Your task to perform on an android device: Search for a nice rug on Crate & Barrel Image 0: 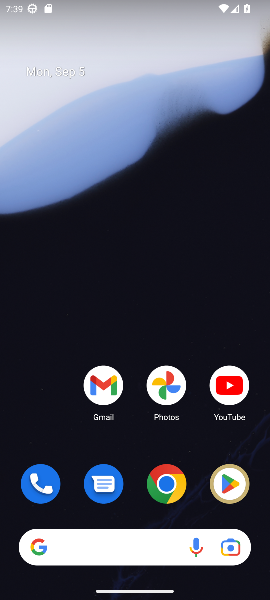
Step 0: drag from (178, 515) to (143, 15)
Your task to perform on an android device: Search for a nice rug on Crate & Barrel Image 1: 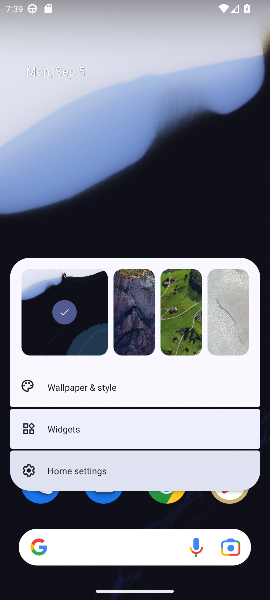
Step 1: click (213, 126)
Your task to perform on an android device: Search for a nice rug on Crate & Barrel Image 2: 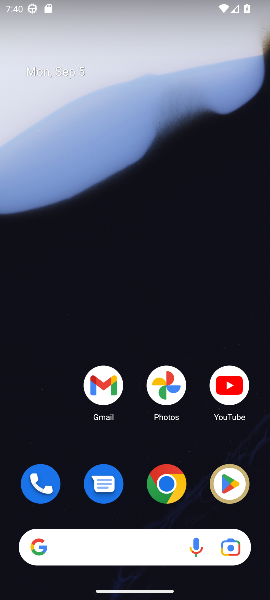
Step 2: drag from (201, 556) to (174, 63)
Your task to perform on an android device: Search for a nice rug on Crate & Barrel Image 3: 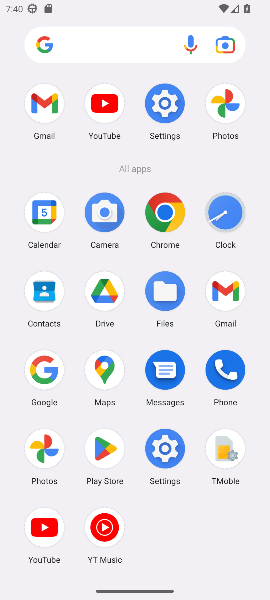
Step 3: click (174, 222)
Your task to perform on an android device: Search for a nice rug on Crate & Barrel Image 4: 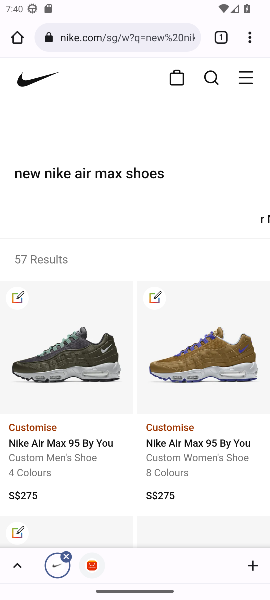
Step 4: click (102, 43)
Your task to perform on an android device: Search for a nice rug on Crate & Barrel Image 5: 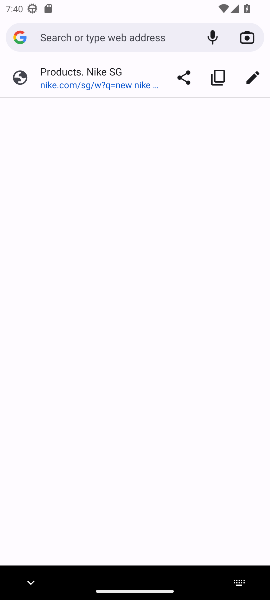
Step 5: type "Crate & Barrel"
Your task to perform on an android device: Search for a nice rug on Crate & Barrel Image 6: 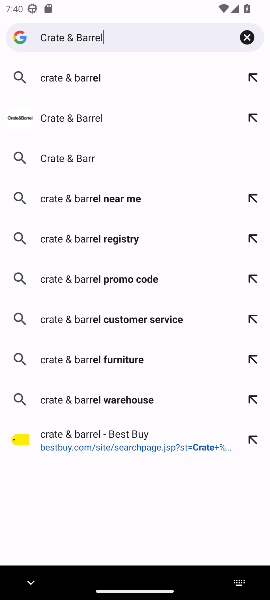
Step 6: press enter
Your task to perform on an android device: Search for a nice rug on Crate & Barrel Image 7: 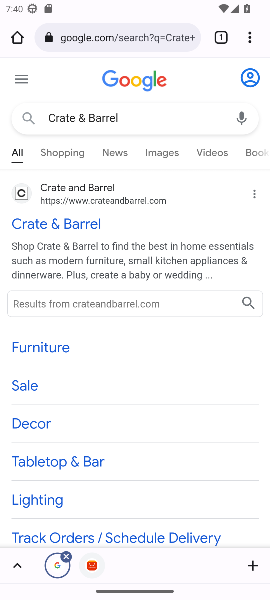
Step 7: click (38, 219)
Your task to perform on an android device: Search for a nice rug on Crate & Barrel Image 8: 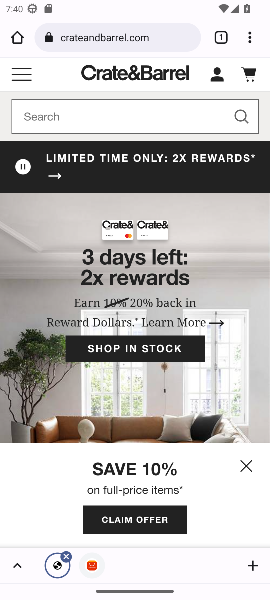
Step 8: click (156, 116)
Your task to perform on an android device: Search for a nice rug on Crate & Barrel Image 9: 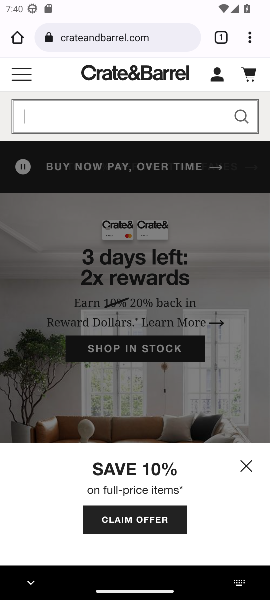
Step 9: type "nice rug"
Your task to perform on an android device: Search for a nice rug on Crate & Barrel Image 10: 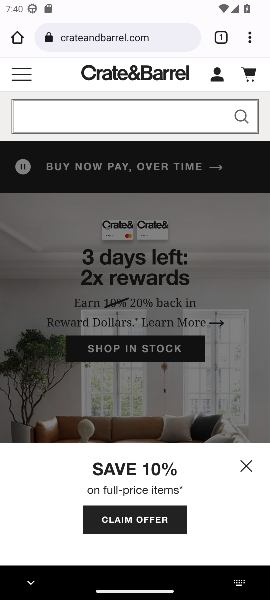
Step 10: press enter
Your task to perform on an android device: Search for a nice rug on Crate & Barrel Image 11: 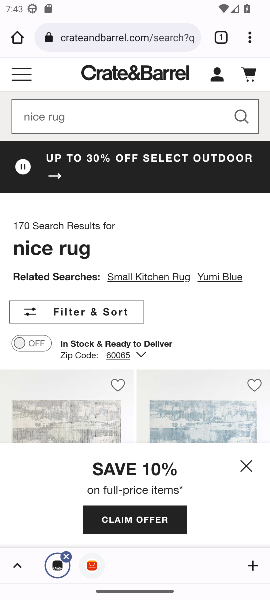
Step 11: click (98, 115)
Your task to perform on an android device: Search for a nice rug on Crate & Barrel Image 12: 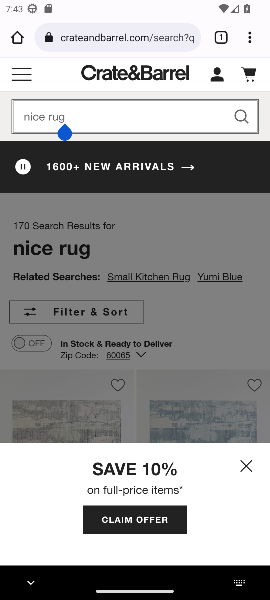
Step 12: click (244, 465)
Your task to perform on an android device: Search for a nice rug on Crate & Barrel Image 13: 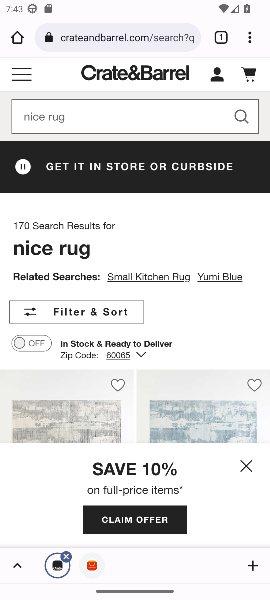
Step 13: task complete